Your task to perform on an android device: Go to Wikipedia Image 0: 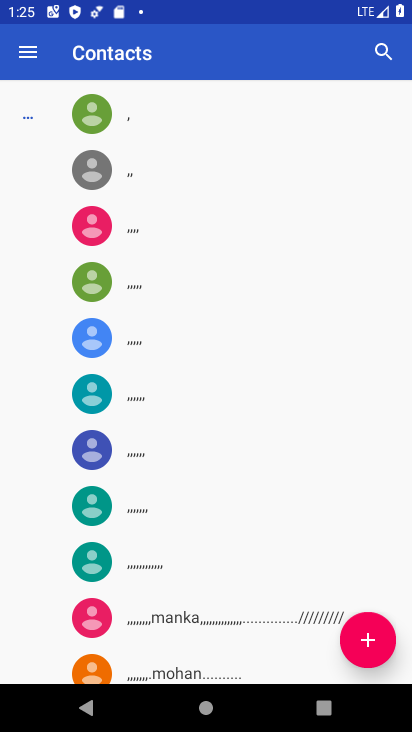
Step 0: press home button
Your task to perform on an android device: Go to Wikipedia Image 1: 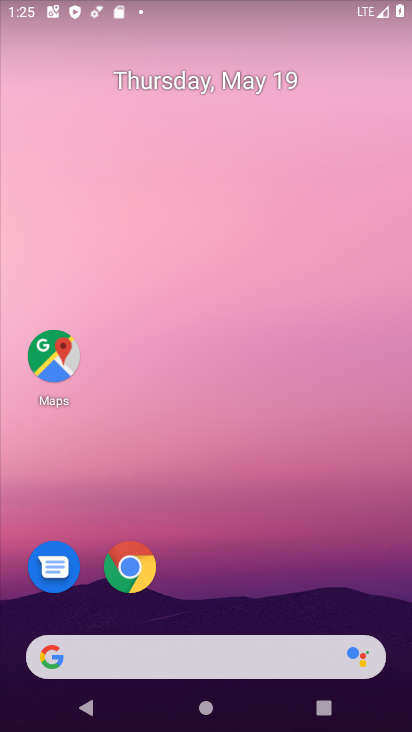
Step 1: click (125, 560)
Your task to perform on an android device: Go to Wikipedia Image 2: 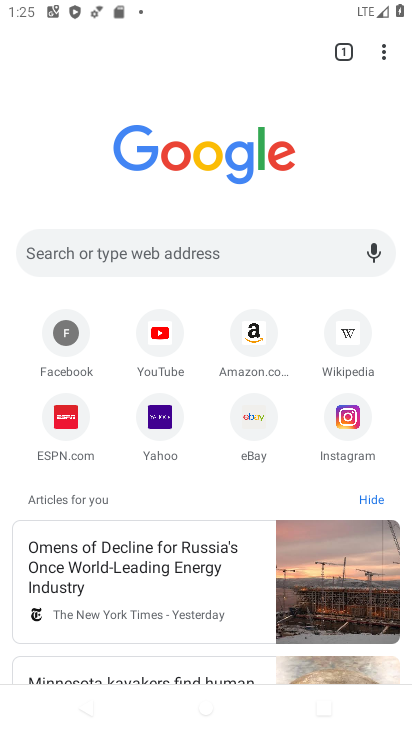
Step 2: click (348, 342)
Your task to perform on an android device: Go to Wikipedia Image 3: 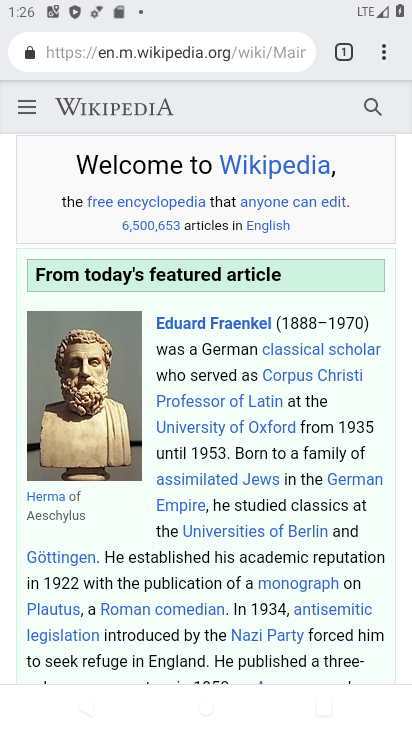
Step 3: task complete